Your task to perform on an android device: Open Google Chrome and open the bookmarks view Image 0: 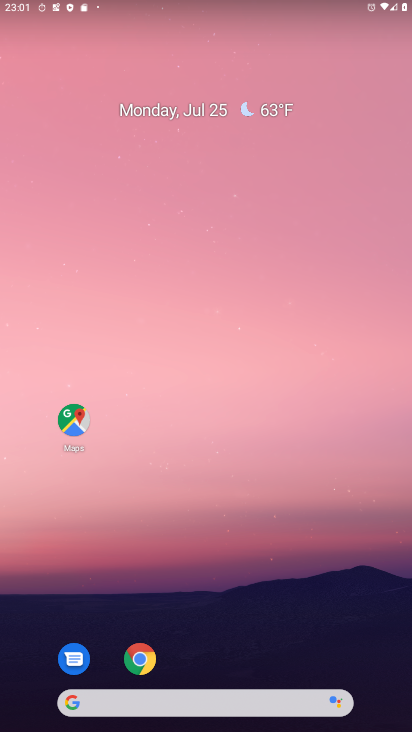
Step 0: click (139, 656)
Your task to perform on an android device: Open Google Chrome and open the bookmarks view Image 1: 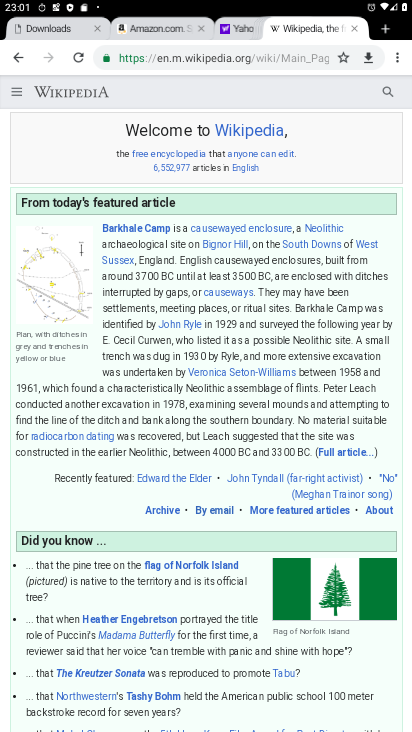
Step 1: click (395, 57)
Your task to perform on an android device: Open Google Chrome and open the bookmarks view Image 2: 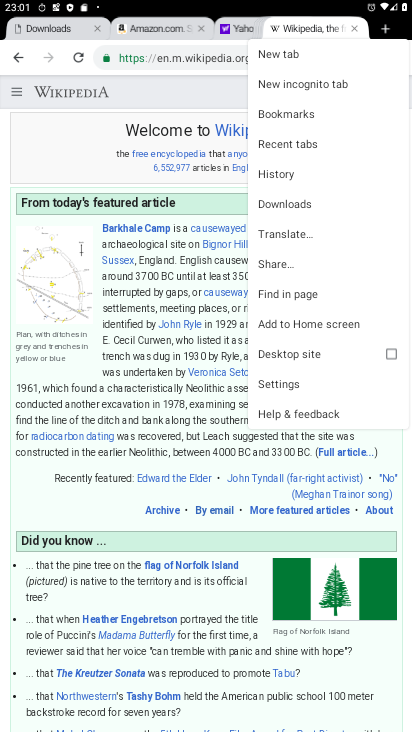
Step 2: click (289, 108)
Your task to perform on an android device: Open Google Chrome and open the bookmarks view Image 3: 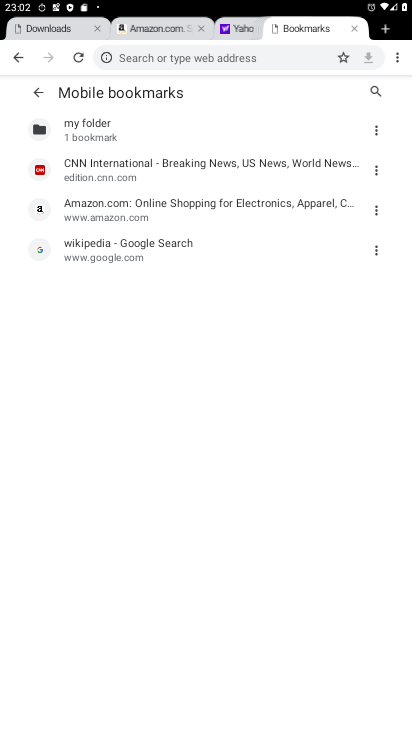
Step 3: task complete